Your task to perform on an android device: Open Maps and search for coffee Image 0: 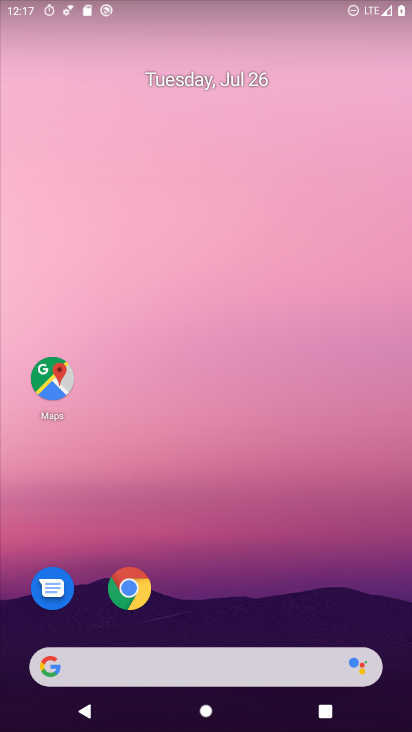
Step 0: click (61, 384)
Your task to perform on an android device: Open Maps and search for coffee Image 1: 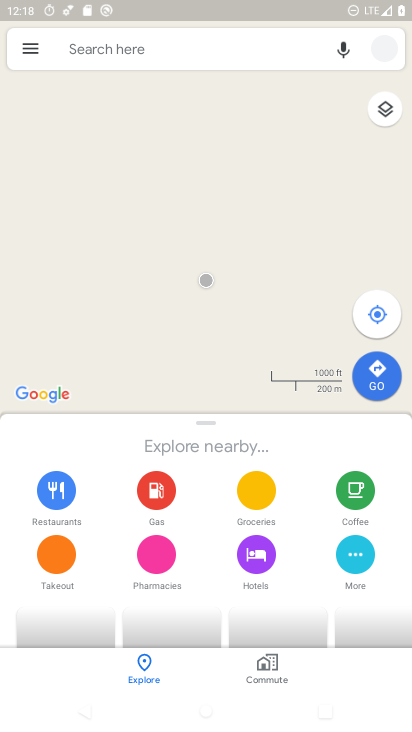
Step 1: click (214, 52)
Your task to perform on an android device: Open Maps and search for coffee Image 2: 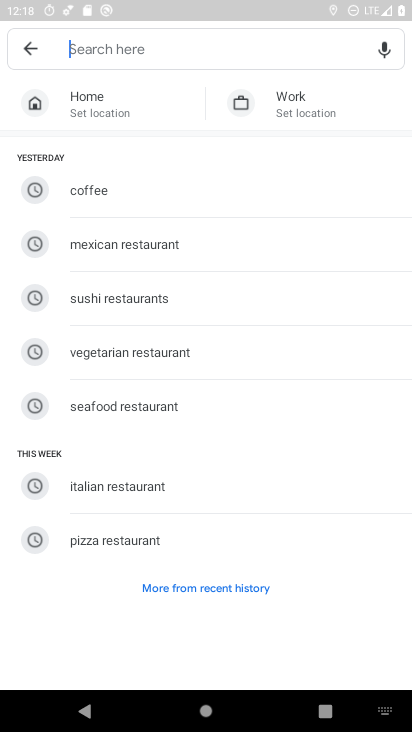
Step 2: click (97, 194)
Your task to perform on an android device: Open Maps and search for coffee Image 3: 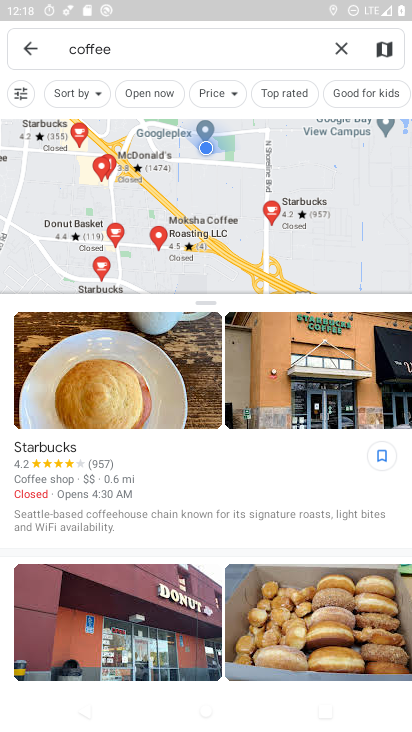
Step 3: task complete